Your task to perform on an android device: Search for Mexican restaurants on Maps Image 0: 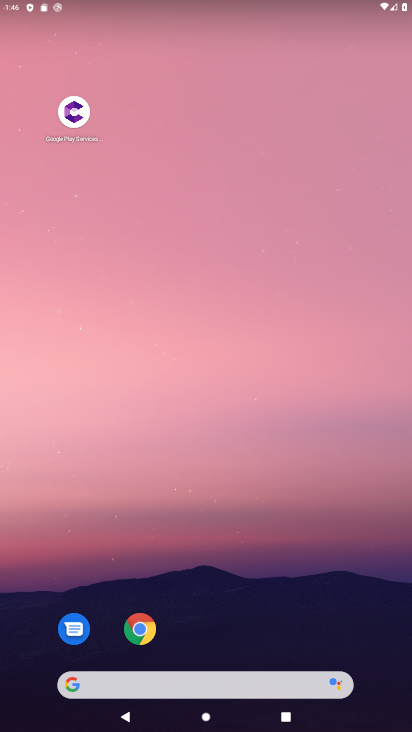
Step 0: drag from (230, 663) to (245, 57)
Your task to perform on an android device: Search for Mexican restaurants on Maps Image 1: 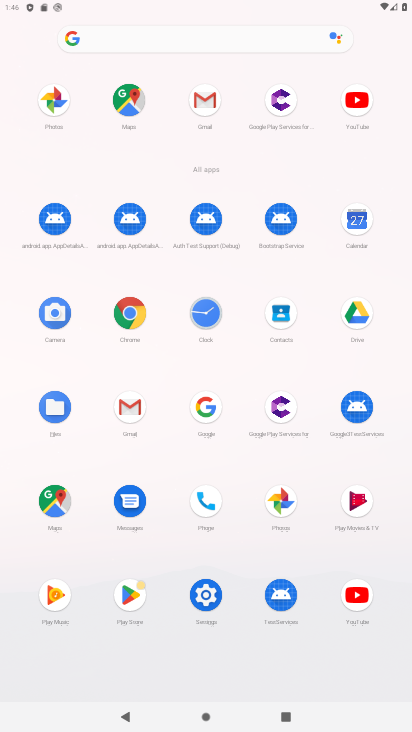
Step 1: click (51, 499)
Your task to perform on an android device: Search for Mexican restaurants on Maps Image 2: 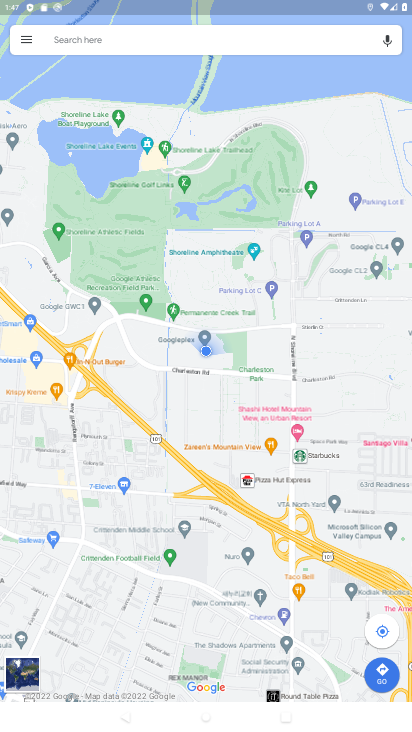
Step 2: click (25, 41)
Your task to perform on an android device: Search for Mexican restaurants on Maps Image 3: 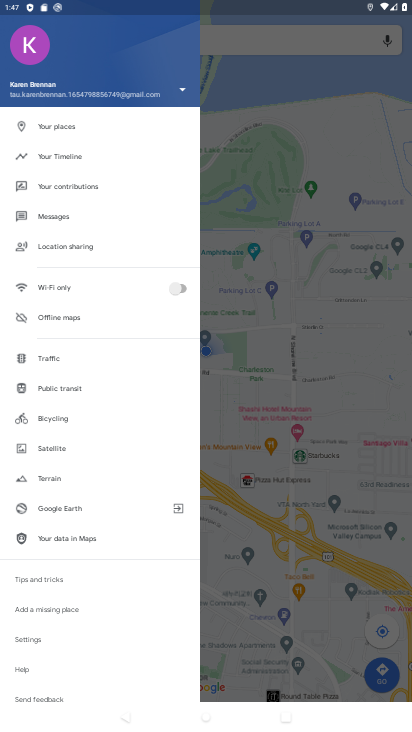
Step 3: click (267, 241)
Your task to perform on an android device: Search for Mexican restaurants on Maps Image 4: 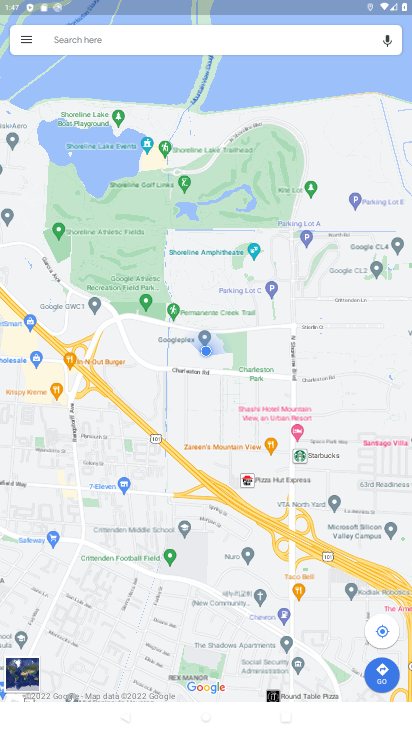
Step 4: click (179, 42)
Your task to perform on an android device: Search for Mexican restaurants on Maps Image 5: 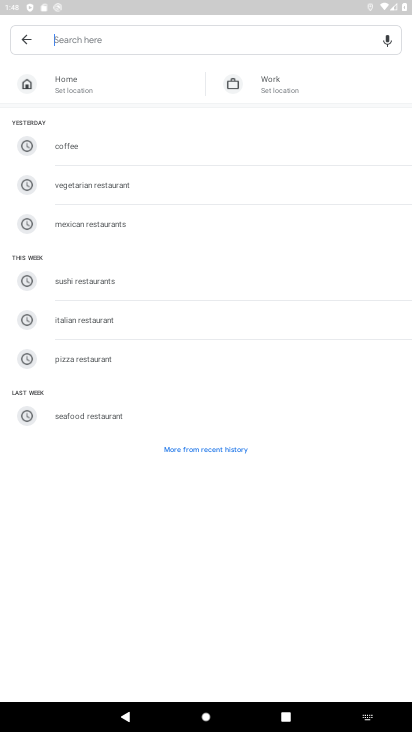
Step 5: click (103, 219)
Your task to perform on an android device: Search for Mexican restaurants on Maps Image 6: 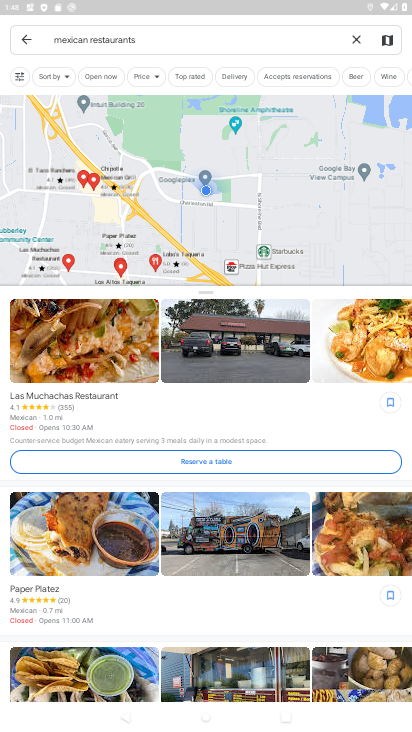
Step 6: task complete